Your task to perform on an android device: check battery use Image 0: 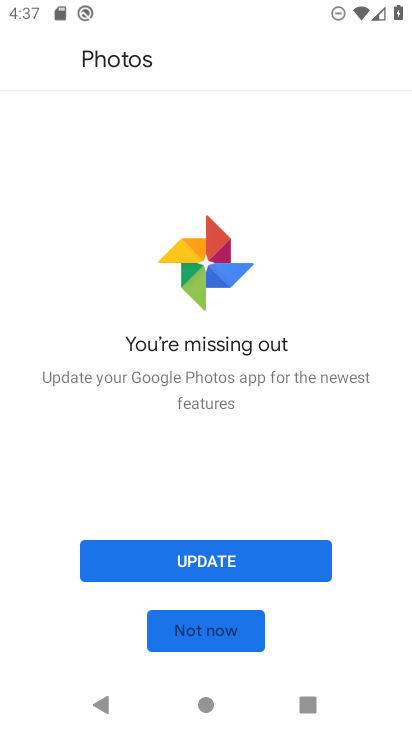
Step 0: press home button
Your task to perform on an android device: check battery use Image 1: 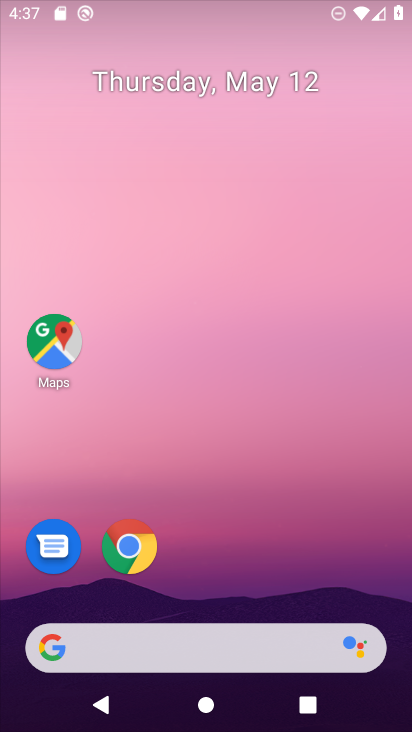
Step 1: drag from (252, 551) to (252, 250)
Your task to perform on an android device: check battery use Image 2: 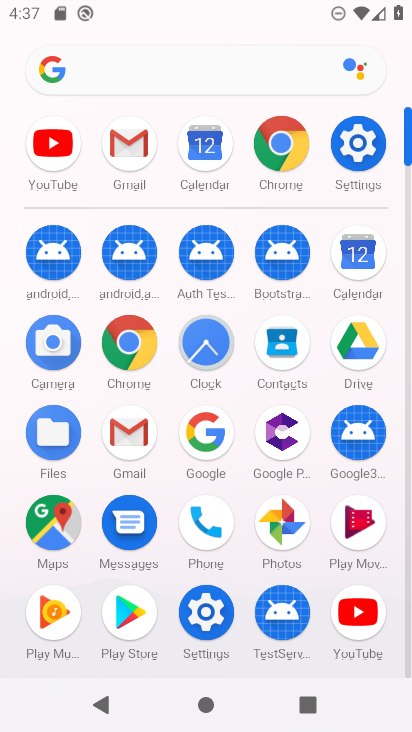
Step 2: click (362, 136)
Your task to perform on an android device: check battery use Image 3: 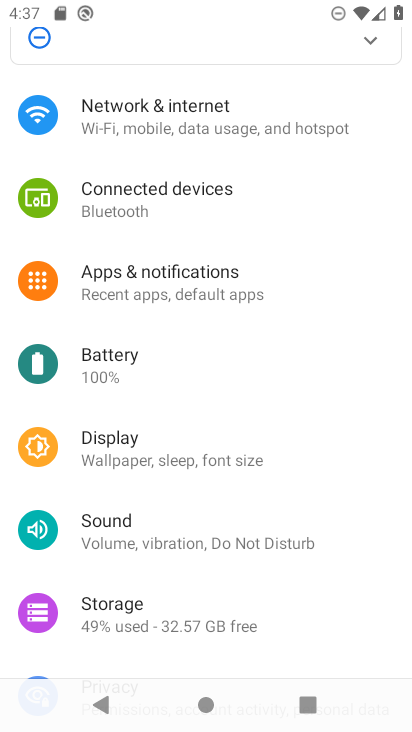
Step 3: click (125, 361)
Your task to perform on an android device: check battery use Image 4: 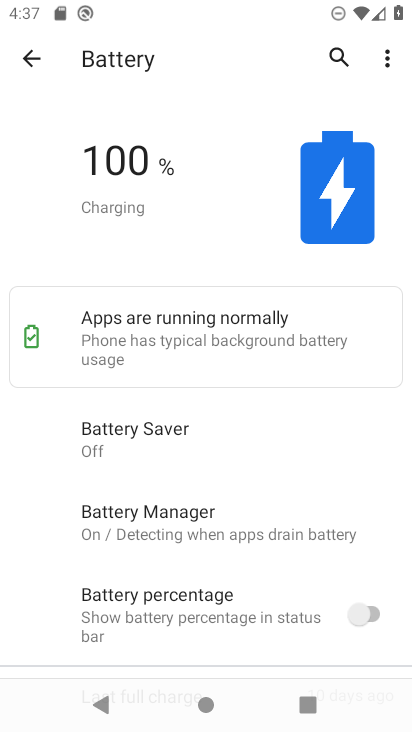
Step 4: task complete